Your task to perform on an android device: Turn off the flashlight Image 0: 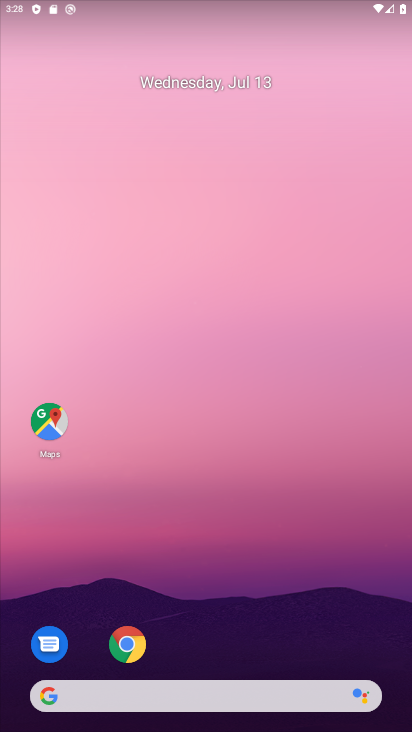
Step 0: drag from (323, 9) to (282, 530)
Your task to perform on an android device: Turn off the flashlight Image 1: 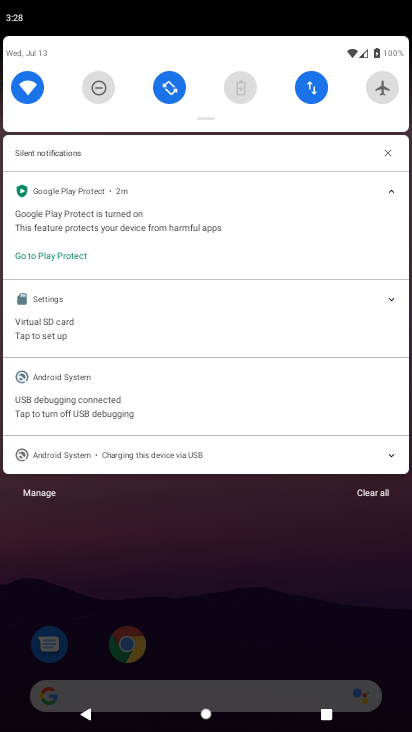
Step 1: drag from (214, 125) to (225, 526)
Your task to perform on an android device: Turn off the flashlight Image 2: 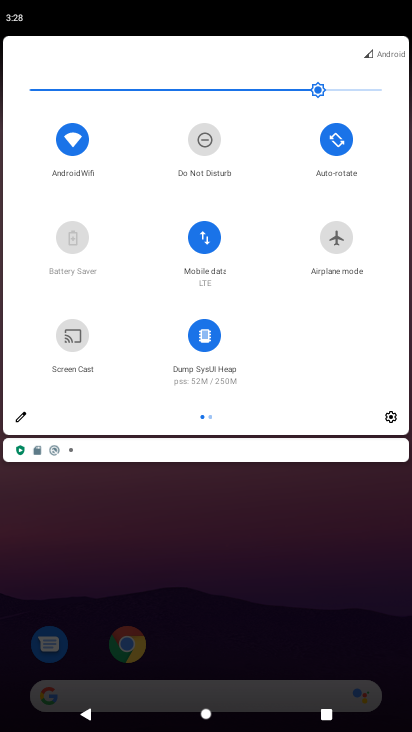
Step 2: click (21, 411)
Your task to perform on an android device: Turn off the flashlight Image 3: 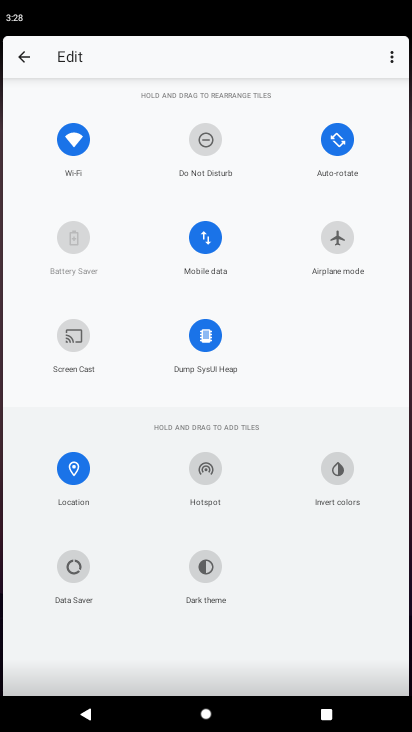
Step 3: task complete